Your task to perform on an android device: Show me the alarms in the clock app Image 0: 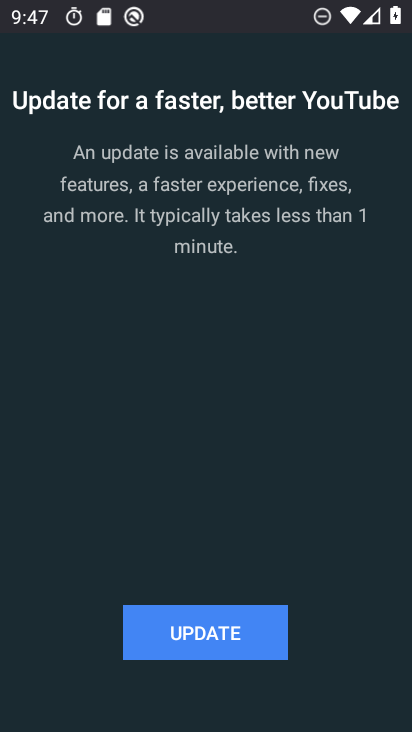
Step 0: press back button
Your task to perform on an android device: Show me the alarms in the clock app Image 1: 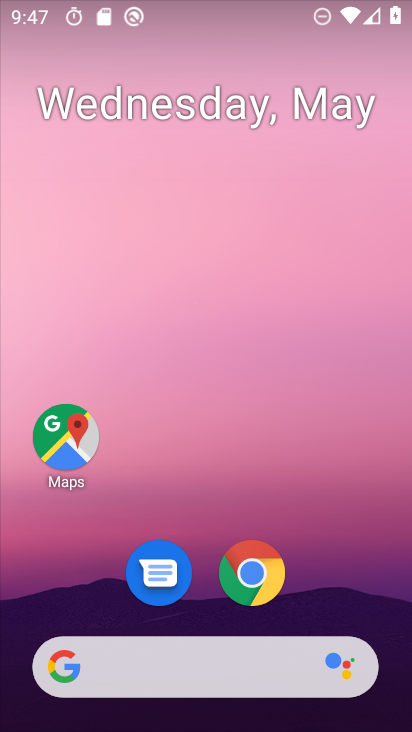
Step 1: drag from (386, 676) to (385, 44)
Your task to perform on an android device: Show me the alarms in the clock app Image 2: 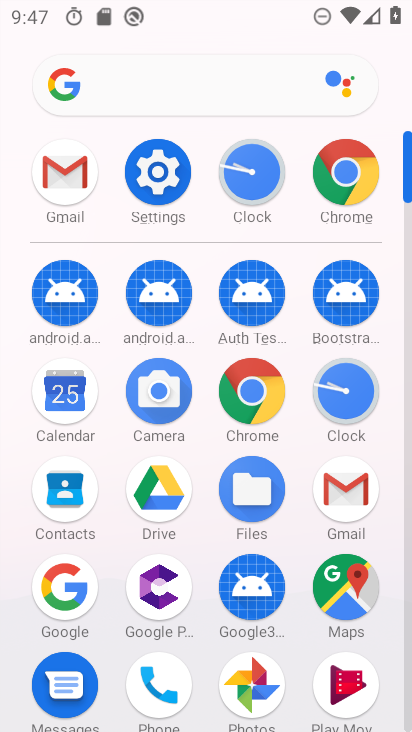
Step 2: click (347, 399)
Your task to perform on an android device: Show me the alarms in the clock app Image 3: 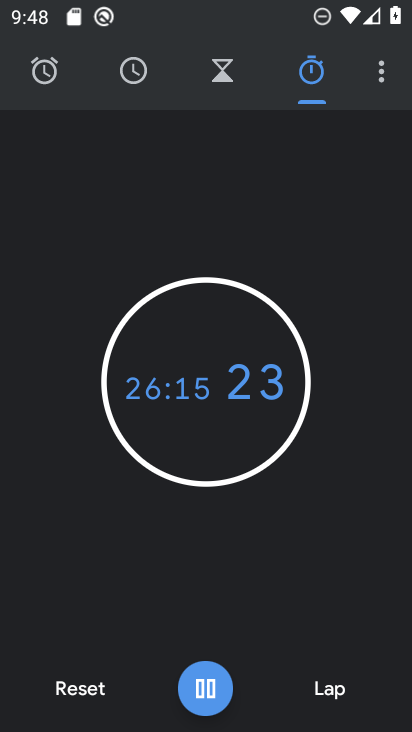
Step 3: click (58, 87)
Your task to perform on an android device: Show me the alarms in the clock app Image 4: 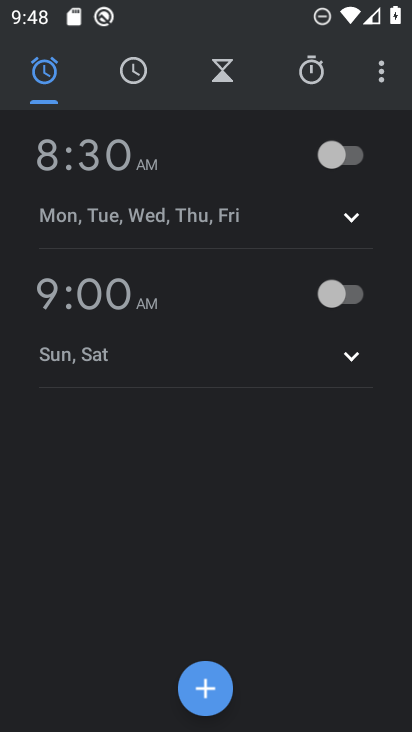
Step 4: task complete